Your task to perform on an android device: change notification settings in the gmail app Image 0: 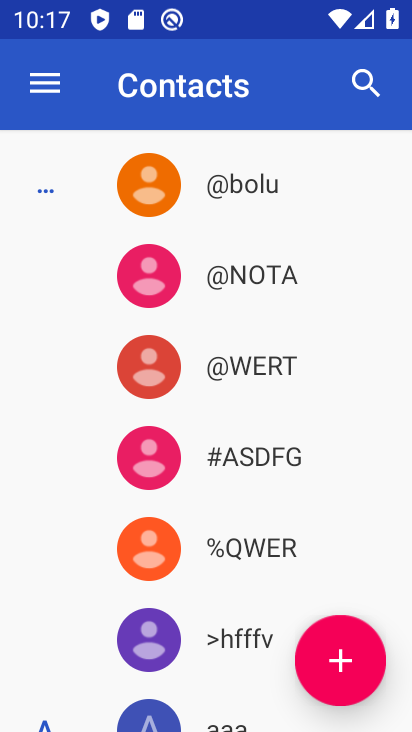
Step 0: press home button
Your task to perform on an android device: change notification settings in the gmail app Image 1: 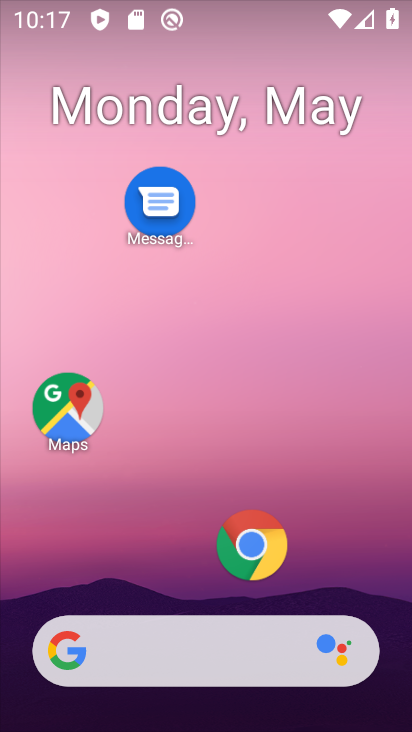
Step 1: drag from (184, 498) to (210, 103)
Your task to perform on an android device: change notification settings in the gmail app Image 2: 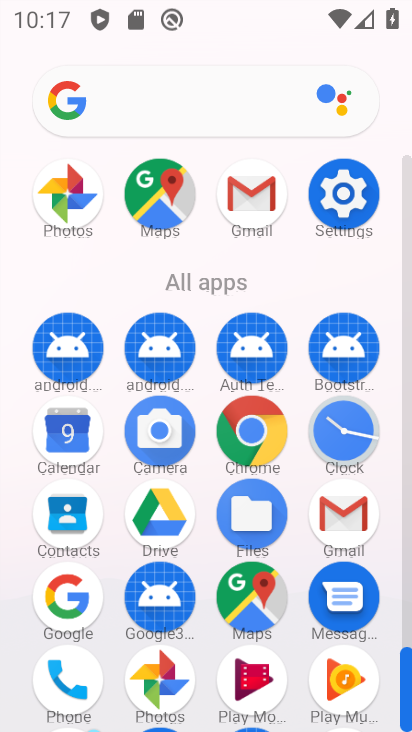
Step 2: click (253, 214)
Your task to perform on an android device: change notification settings in the gmail app Image 3: 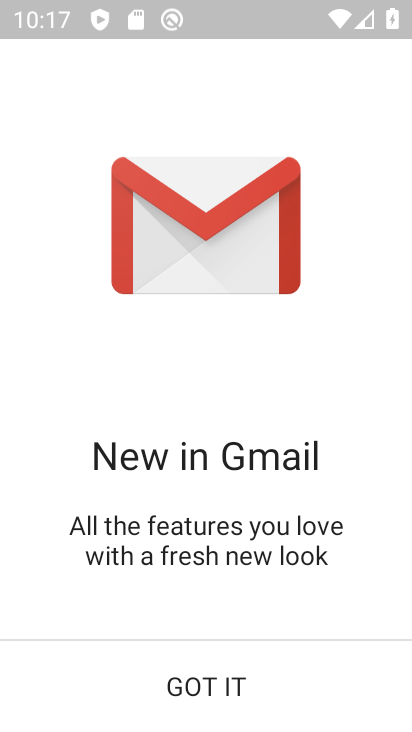
Step 3: click (217, 682)
Your task to perform on an android device: change notification settings in the gmail app Image 4: 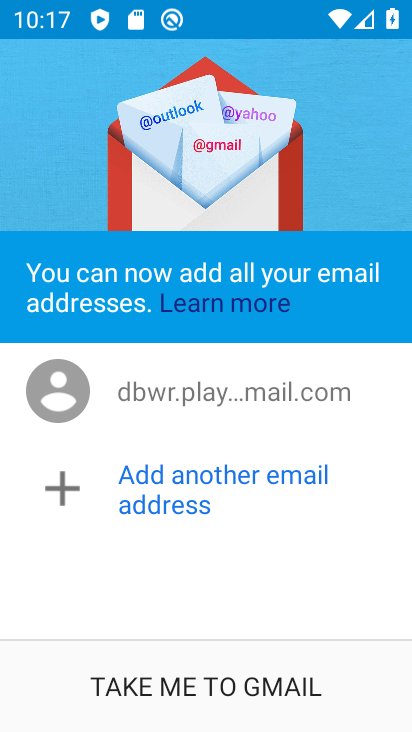
Step 4: click (344, 684)
Your task to perform on an android device: change notification settings in the gmail app Image 5: 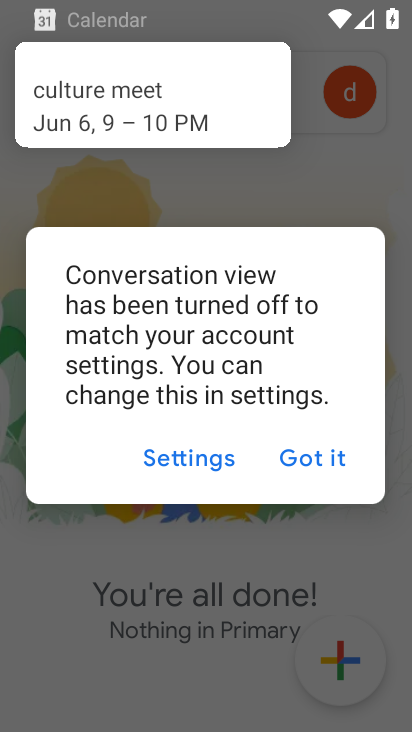
Step 5: click (327, 464)
Your task to perform on an android device: change notification settings in the gmail app Image 6: 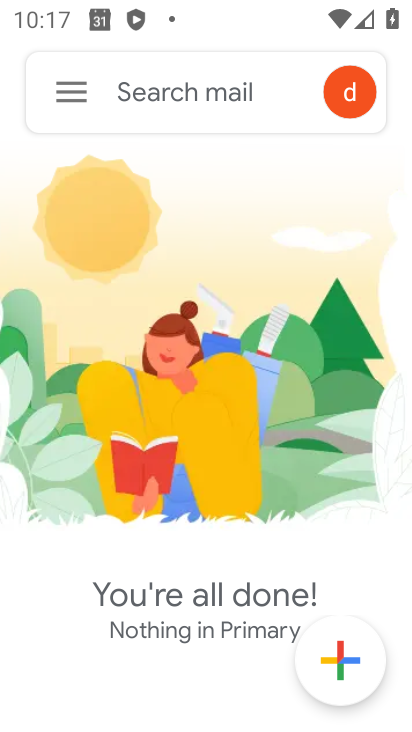
Step 6: click (70, 103)
Your task to perform on an android device: change notification settings in the gmail app Image 7: 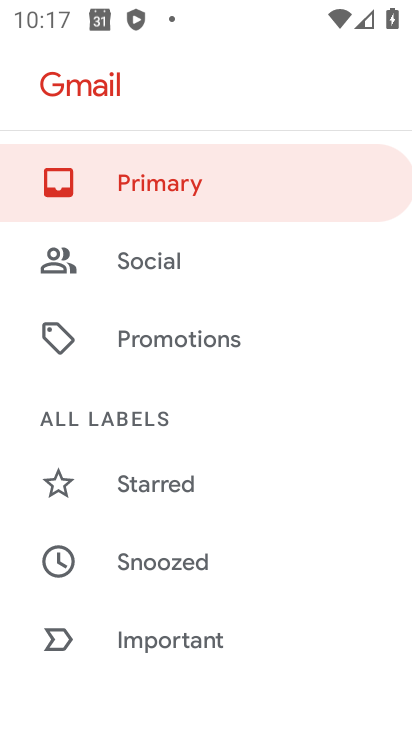
Step 7: drag from (205, 579) to (210, 374)
Your task to perform on an android device: change notification settings in the gmail app Image 8: 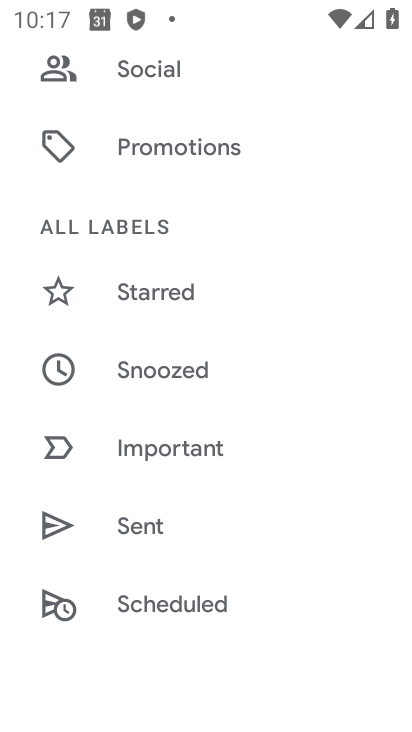
Step 8: drag from (153, 585) to (164, 362)
Your task to perform on an android device: change notification settings in the gmail app Image 9: 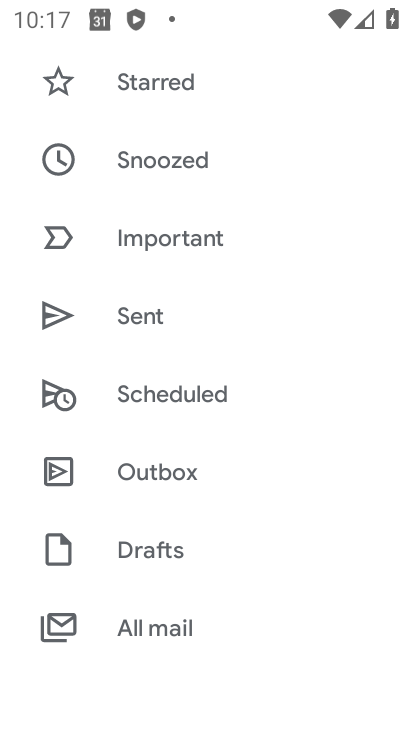
Step 9: drag from (186, 600) to (204, 377)
Your task to perform on an android device: change notification settings in the gmail app Image 10: 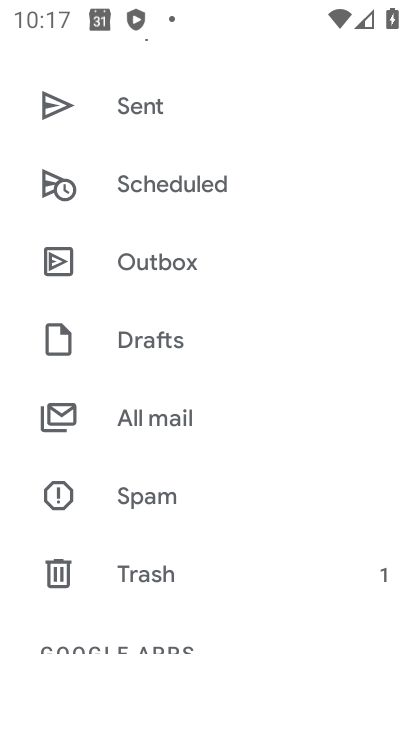
Step 10: drag from (211, 565) to (250, 313)
Your task to perform on an android device: change notification settings in the gmail app Image 11: 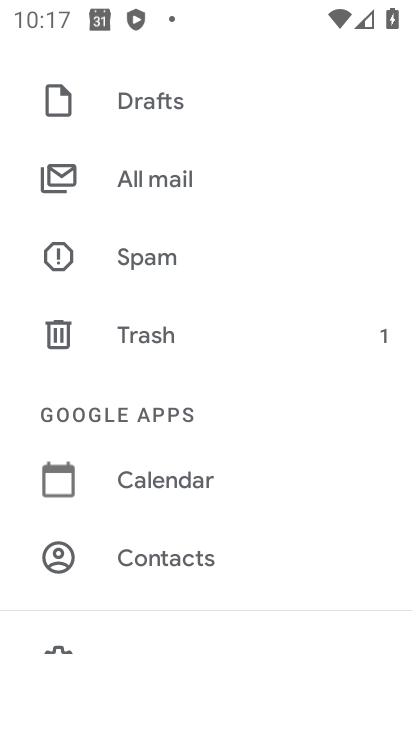
Step 11: drag from (196, 536) to (219, 407)
Your task to perform on an android device: change notification settings in the gmail app Image 12: 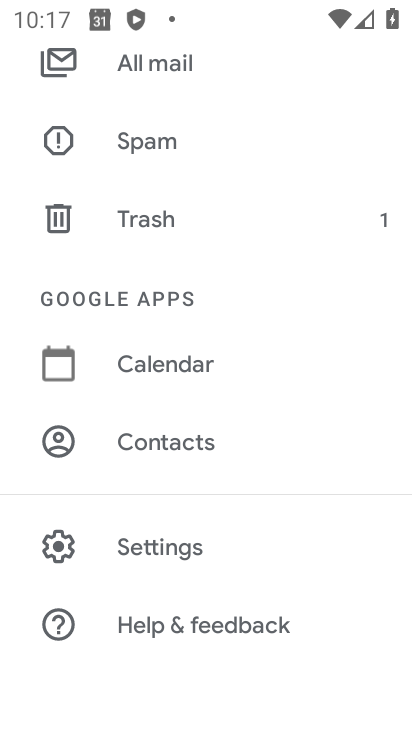
Step 12: click (215, 557)
Your task to perform on an android device: change notification settings in the gmail app Image 13: 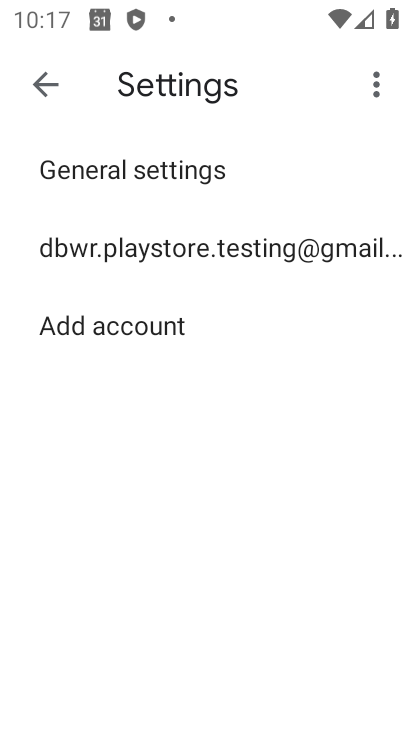
Step 13: click (204, 263)
Your task to perform on an android device: change notification settings in the gmail app Image 14: 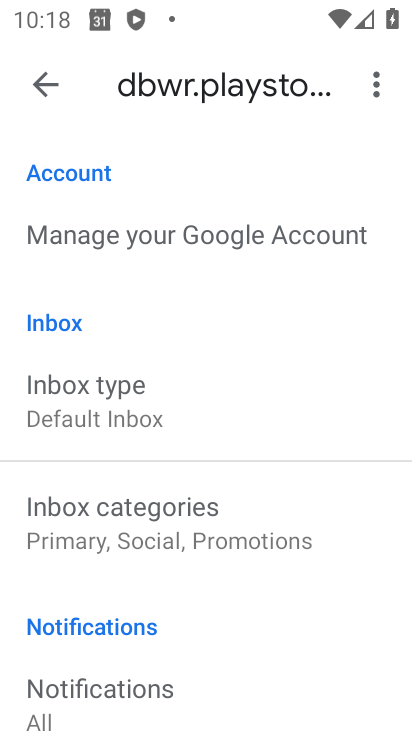
Step 14: drag from (205, 615) to (197, 272)
Your task to perform on an android device: change notification settings in the gmail app Image 15: 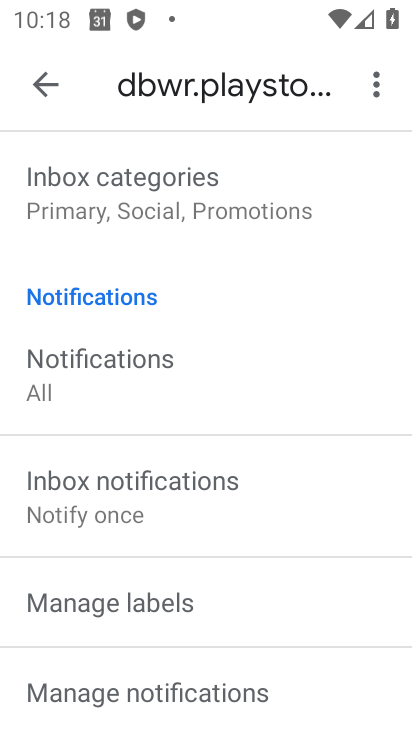
Step 15: click (117, 275)
Your task to perform on an android device: change notification settings in the gmail app Image 16: 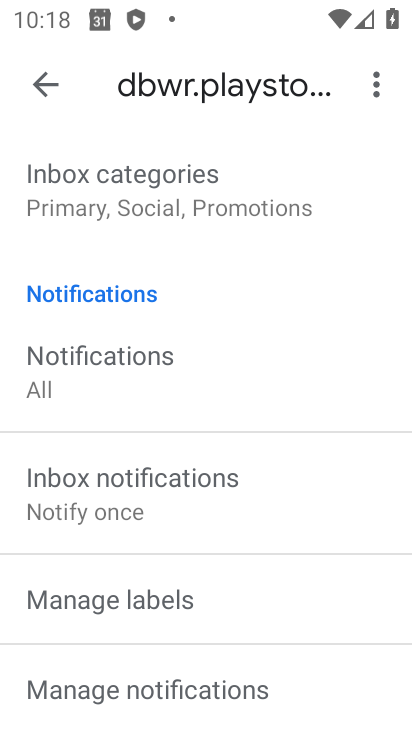
Step 16: click (116, 679)
Your task to perform on an android device: change notification settings in the gmail app Image 17: 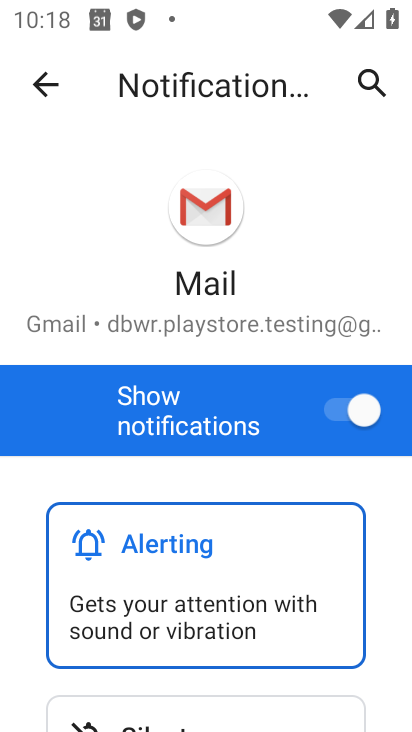
Step 17: click (351, 397)
Your task to perform on an android device: change notification settings in the gmail app Image 18: 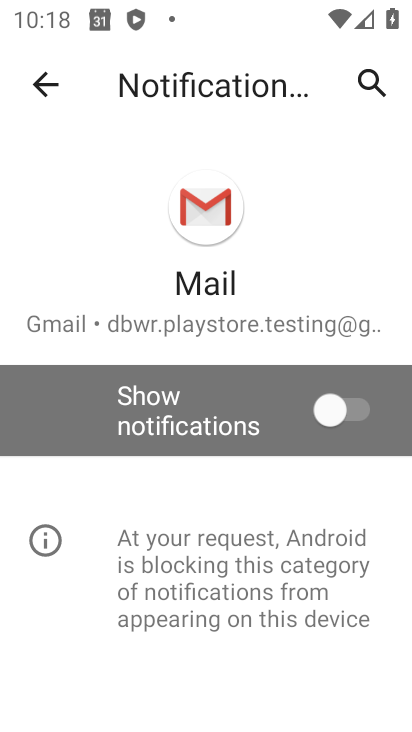
Step 18: task complete